Your task to perform on an android device: toggle translation in the chrome app Image 0: 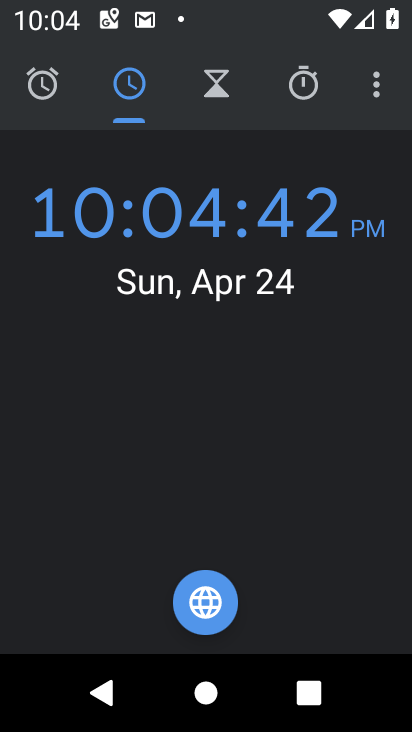
Step 0: press back button
Your task to perform on an android device: toggle translation in the chrome app Image 1: 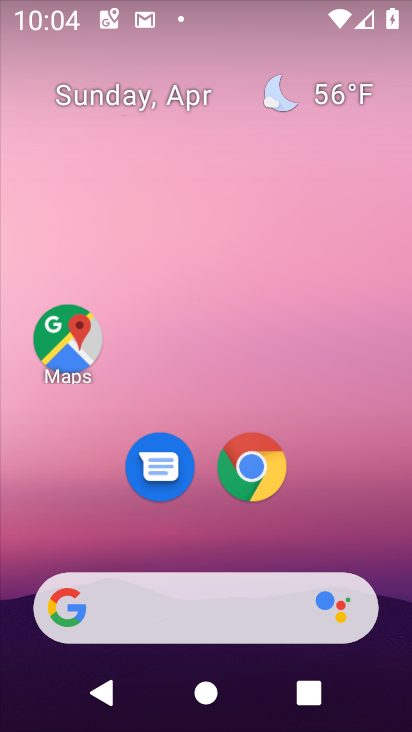
Step 1: drag from (156, 359) to (228, 68)
Your task to perform on an android device: toggle translation in the chrome app Image 2: 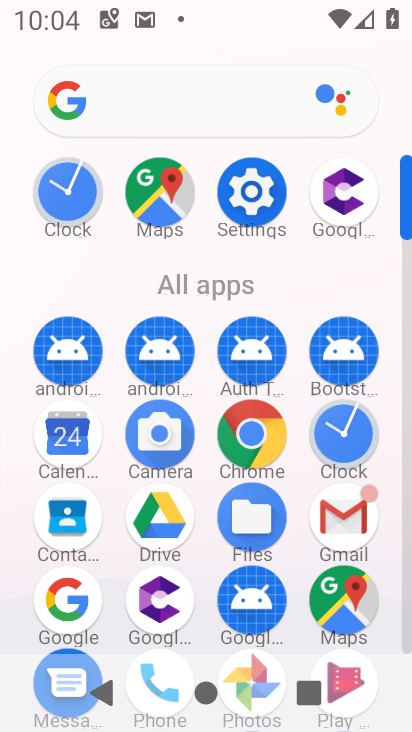
Step 2: click (273, 433)
Your task to perform on an android device: toggle translation in the chrome app Image 3: 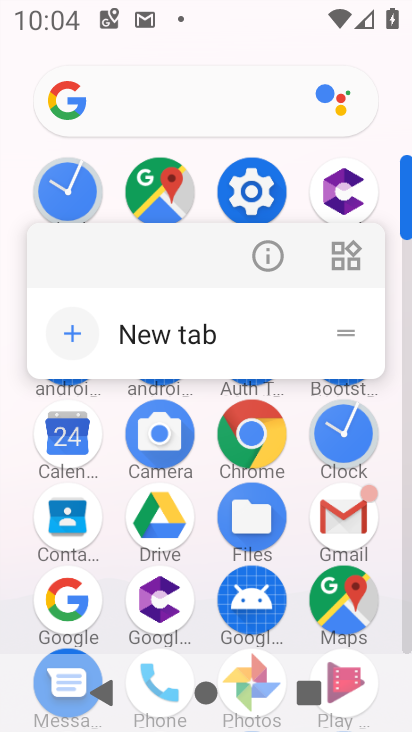
Step 3: click (274, 438)
Your task to perform on an android device: toggle translation in the chrome app Image 4: 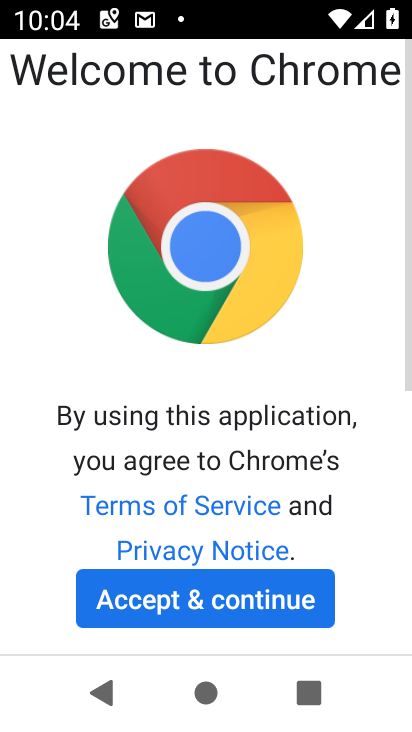
Step 4: click (282, 605)
Your task to perform on an android device: toggle translation in the chrome app Image 5: 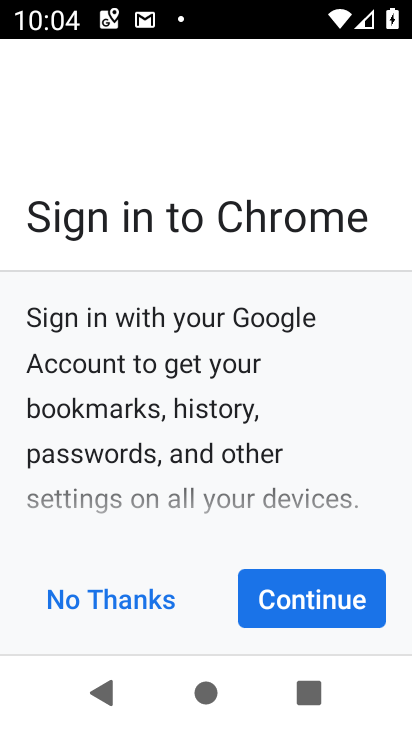
Step 5: click (329, 596)
Your task to perform on an android device: toggle translation in the chrome app Image 6: 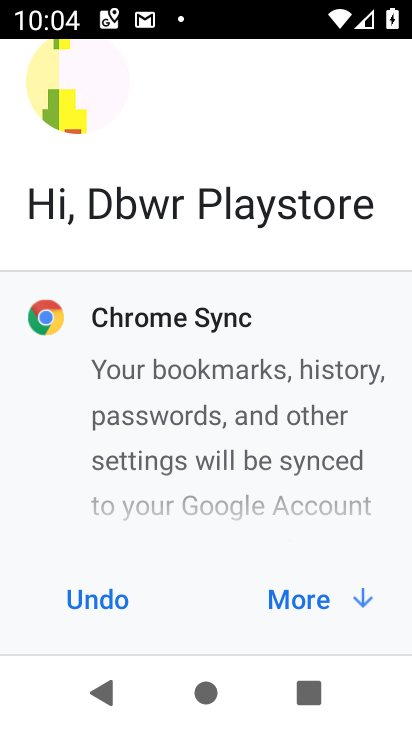
Step 6: click (329, 596)
Your task to perform on an android device: toggle translation in the chrome app Image 7: 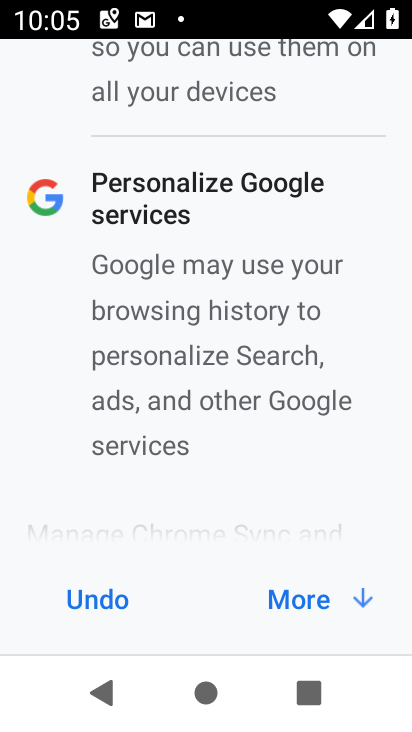
Step 7: click (329, 598)
Your task to perform on an android device: toggle translation in the chrome app Image 8: 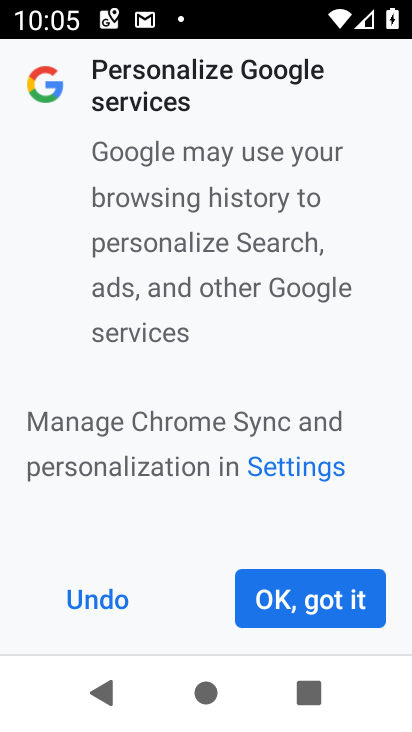
Step 8: click (331, 600)
Your task to perform on an android device: toggle translation in the chrome app Image 9: 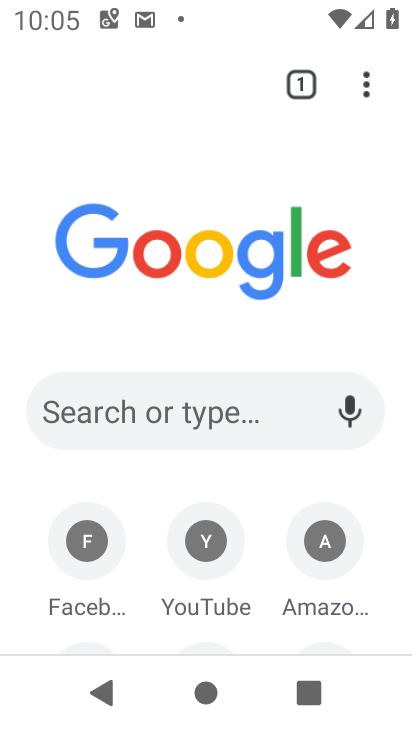
Step 9: click (391, 88)
Your task to perform on an android device: toggle translation in the chrome app Image 10: 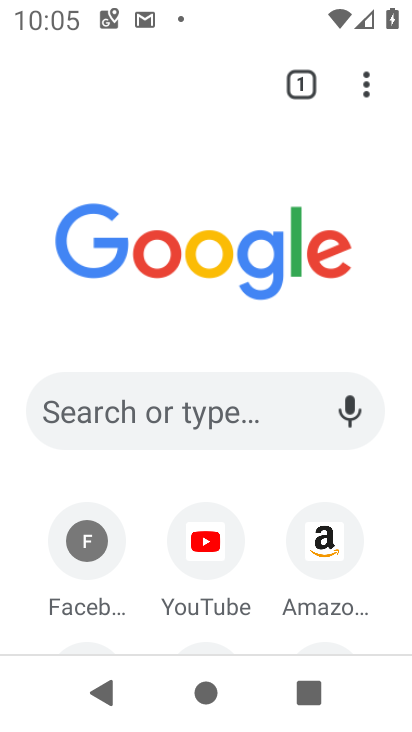
Step 10: drag from (382, 86) to (262, 530)
Your task to perform on an android device: toggle translation in the chrome app Image 11: 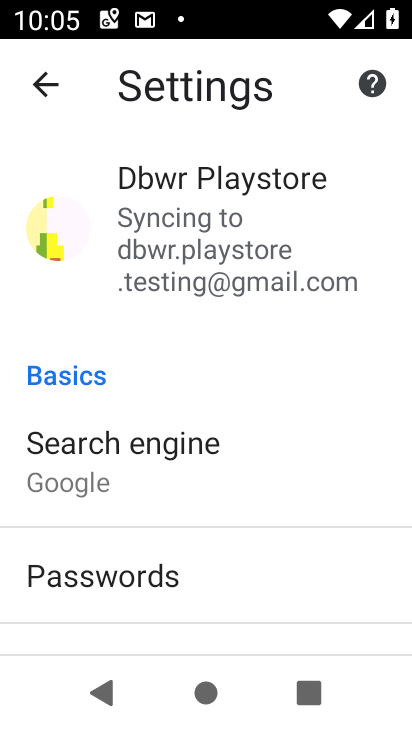
Step 11: drag from (247, 594) to (347, 169)
Your task to perform on an android device: toggle translation in the chrome app Image 12: 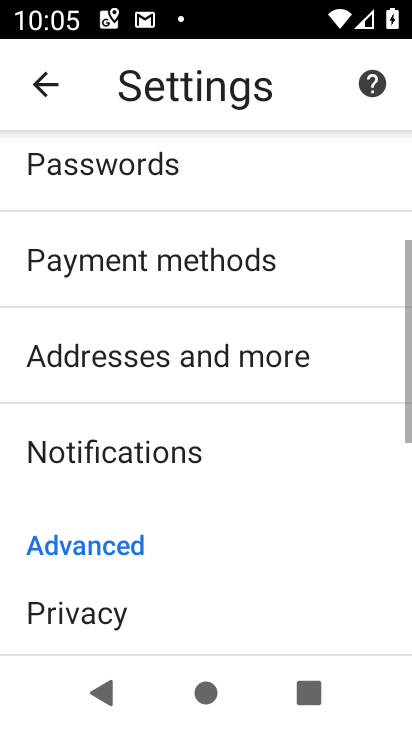
Step 12: drag from (111, 569) to (208, 188)
Your task to perform on an android device: toggle translation in the chrome app Image 13: 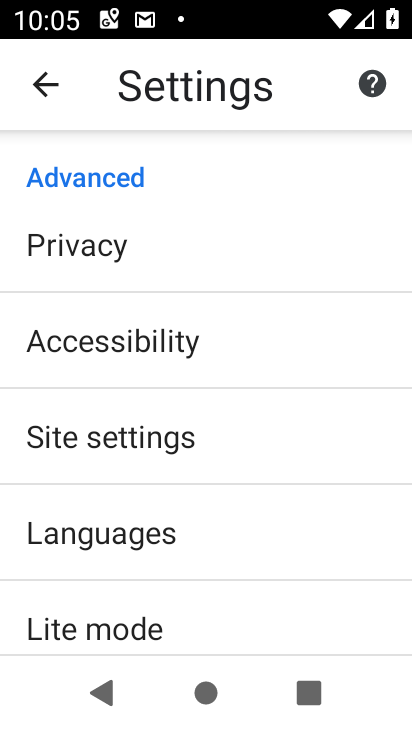
Step 13: click (173, 515)
Your task to perform on an android device: toggle translation in the chrome app Image 14: 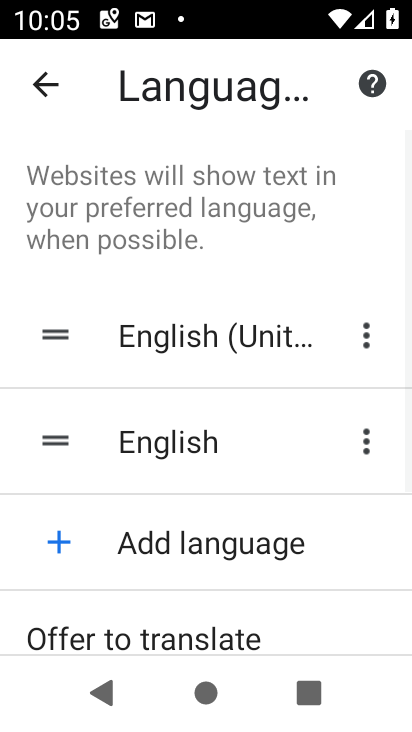
Step 14: drag from (196, 508) to (314, 113)
Your task to perform on an android device: toggle translation in the chrome app Image 15: 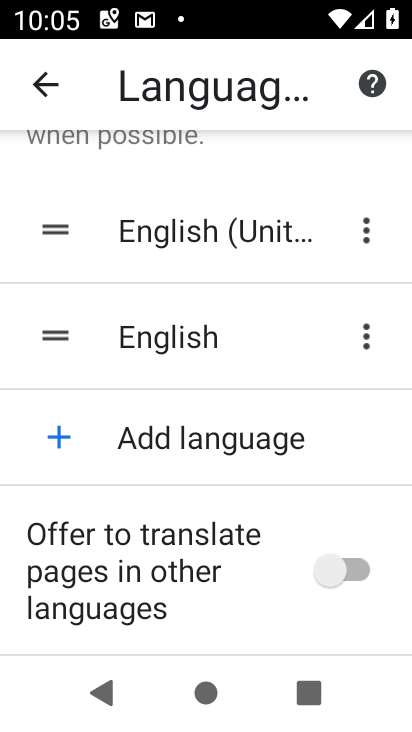
Step 15: click (378, 564)
Your task to perform on an android device: toggle translation in the chrome app Image 16: 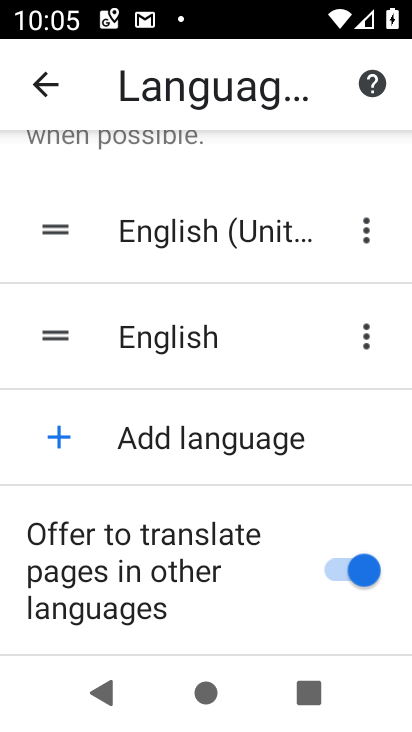
Step 16: task complete